Your task to perform on an android device: toggle wifi Image 0: 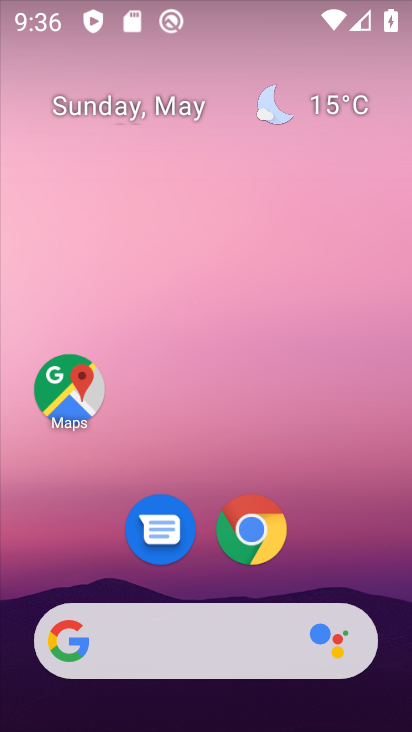
Step 0: drag from (337, 657) to (349, 147)
Your task to perform on an android device: toggle wifi Image 1: 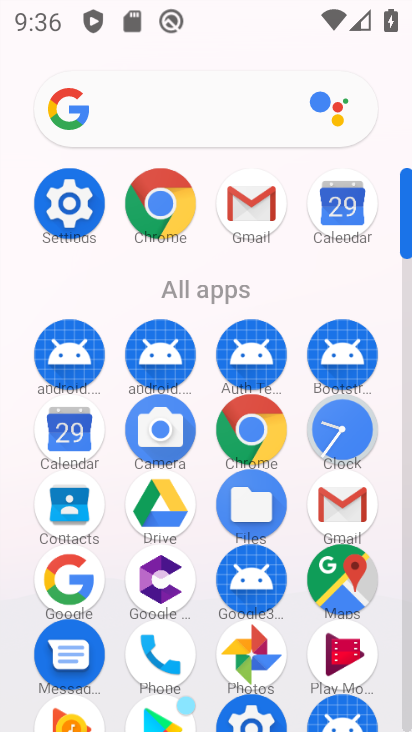
Step 1: click (73, 183)
Your task to perform on an android device: toggle wifi Image 2: 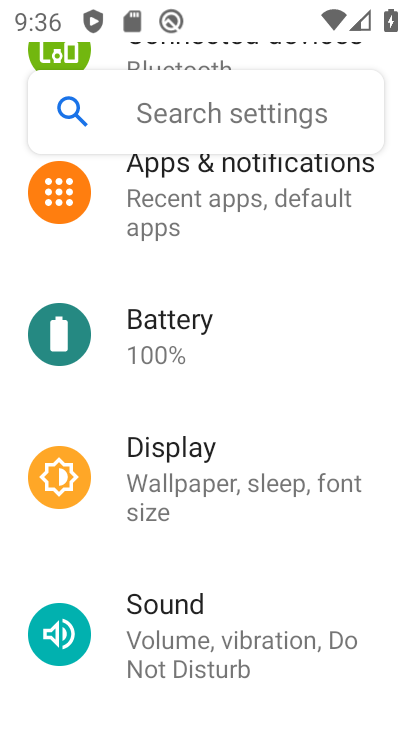
Step 2: drag from (271, 194) to (399, 723)
Your task to perform on an android device: toggle wifi Image 3: 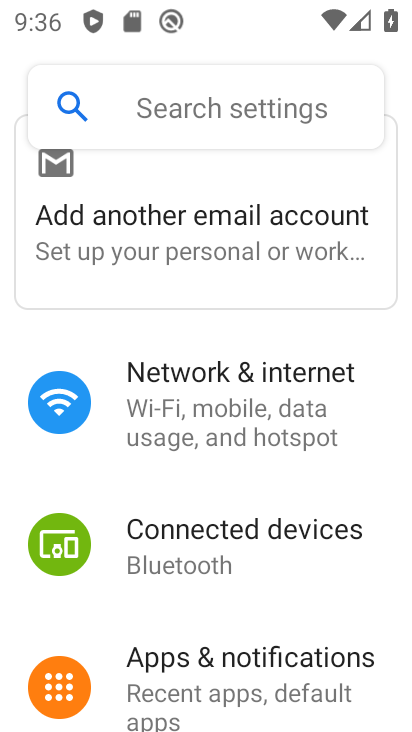
Step 3: click (289, 424)
Your task to perform on an android device: toggle wifi Image 4: 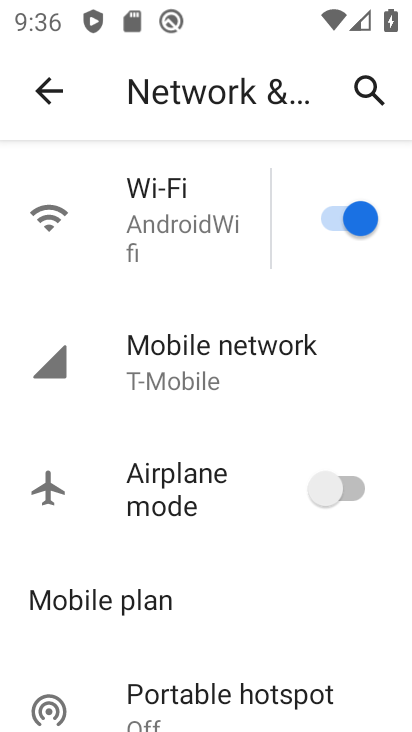
Step 4: click (328, 219)
Your task to perform on an android device: toggle wifi Image 5: 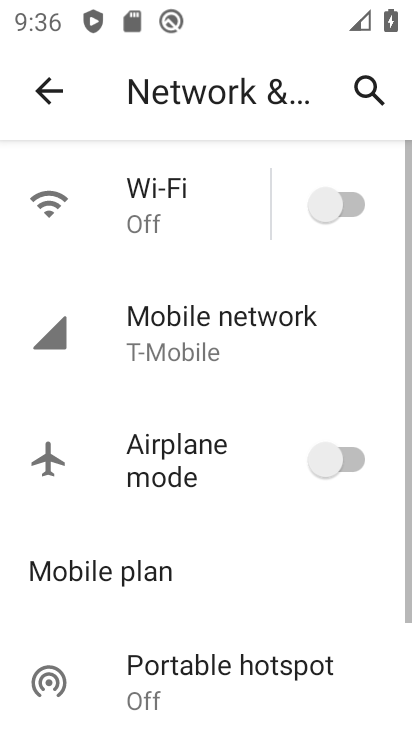
Step 5: task complete